Your task to perform on an android device: toggle javascript in the chrome app Image 0: 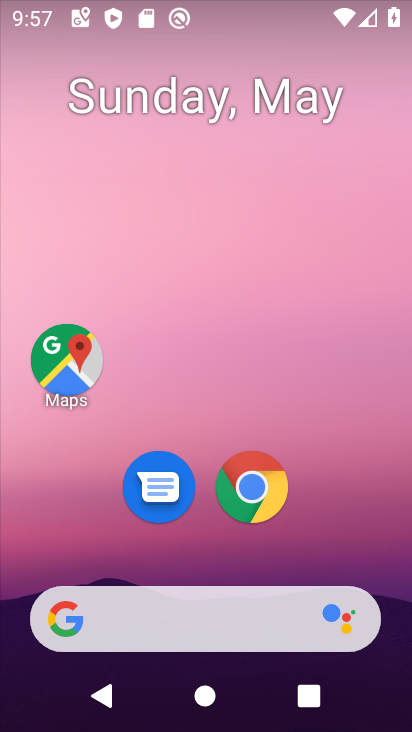
Step 0: drag from (384, 549) to (365, 164)
Your task to perform on an android device: toggle javascript in the chrome app Image 1: 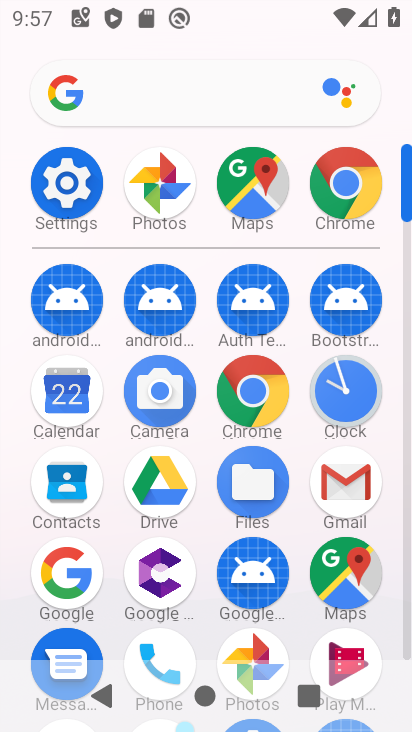
Step 1: click (256, 388)
Your task to perform on an android device: toggle javascript in the chrome app Image 2: 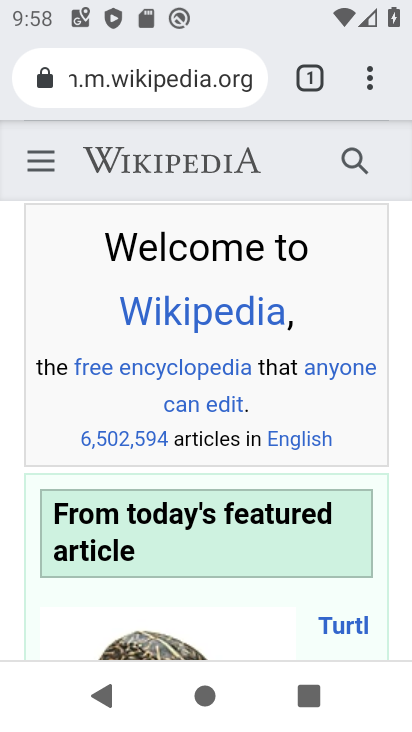
Step 2: click (369, 88)
Your task to perform on an android device: toggle javascript in the chrome app Image 3: 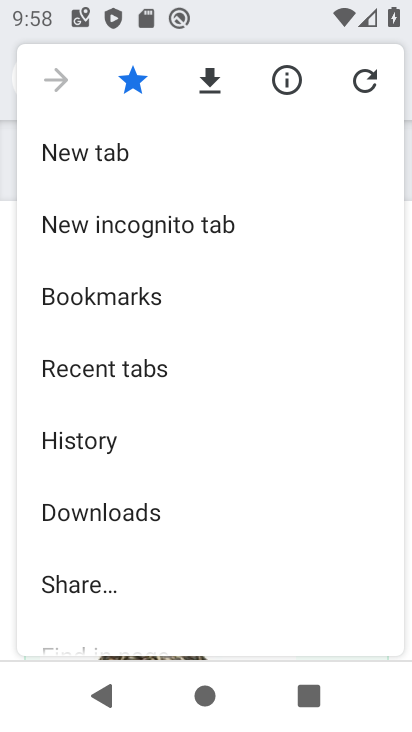
Step 3: drag from (271, 524) to (294, 395)
Your task to perform on an android device: toggle javascript in the chrome app Image 4: 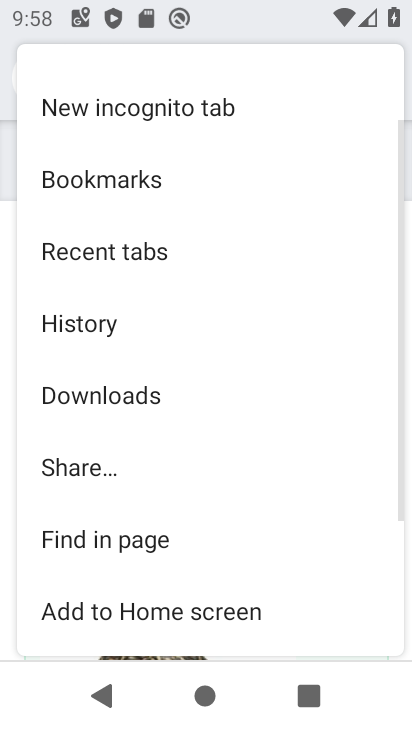
Step 4: drag from (286, 540) to (293, 421)
Your task to perform on an android device: toggle javascript in the chrome app Image 5: 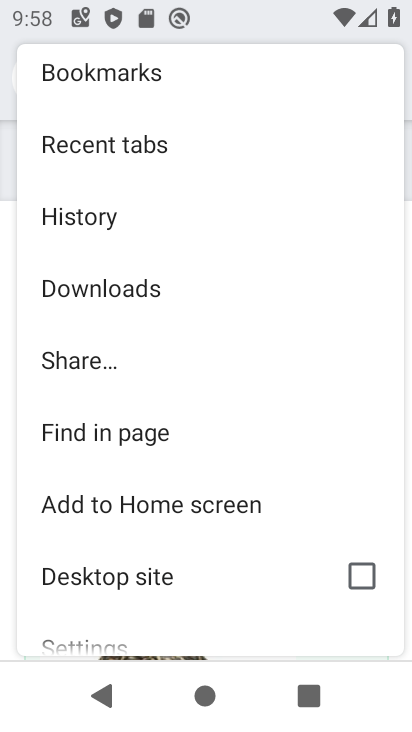
Step 5: drag from (267, 566) to (282, 398)
Your task to perform on an android device: toggle javascript in the chrome app Image 6: 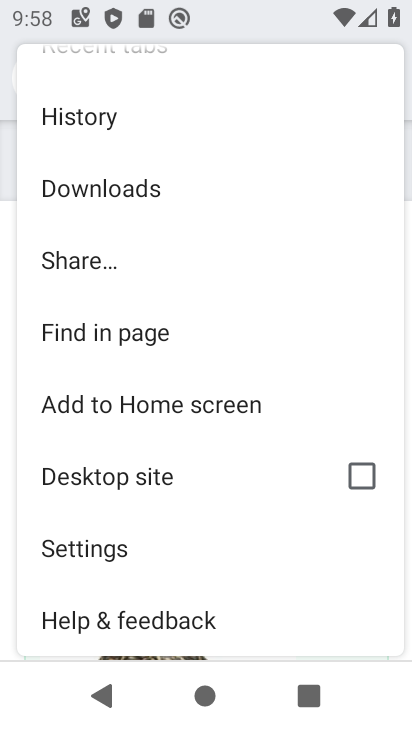
Step 6: click (136, 556)
Your task to perform on an android device: toggle javascript in the chrome app Image 7: 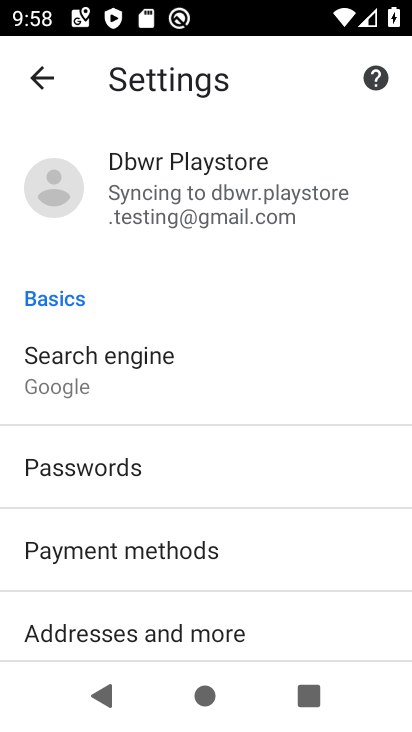
Step 7: drag from (293, 622) to (312, 477)
Your task to perform on an android device: toggle javascript in the chrome app Image 8: 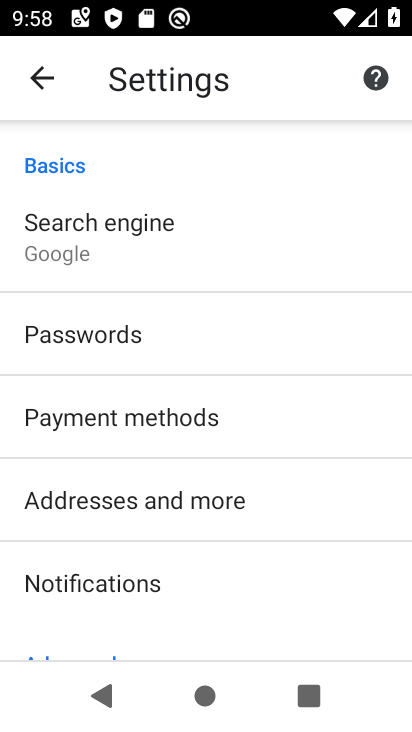
Step 8: drag from (312, 535) to (323, 394)
Your task to perform on an android device: toggle javascript in the chrome app Image 9: 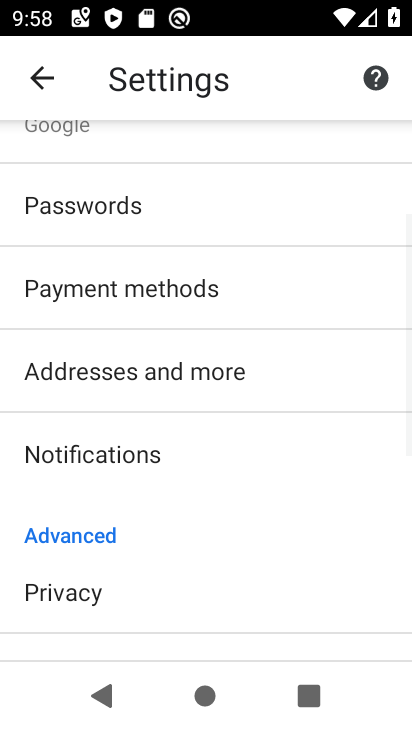
Step 9: drag from (304, 567) to (300, 428)
Your task to perform on an android device: toggle javascript in the chrome app Image 10: 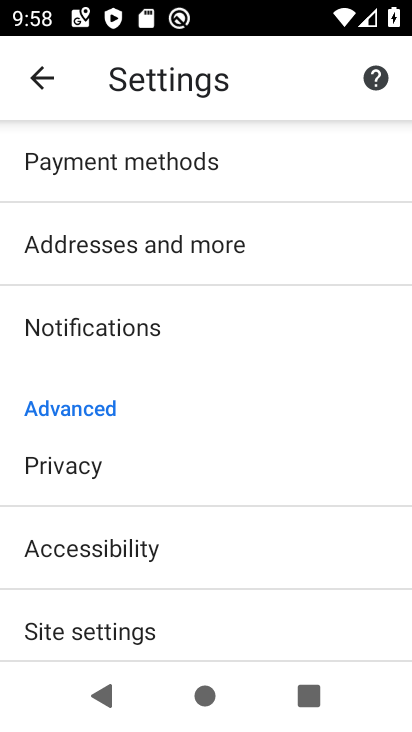
Step 10: drag from (280, 405) to (280, 509)
Your task to perform on an android device: toggle javascript in the chrome app Image 11: 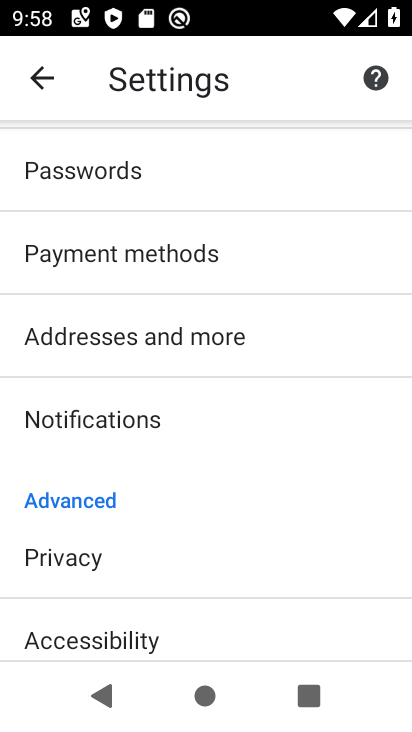
Step 11: drag from (286, 302) to (286, 463)
Your task to perform on an android device: toggle javascript in the chrome app Image 12: 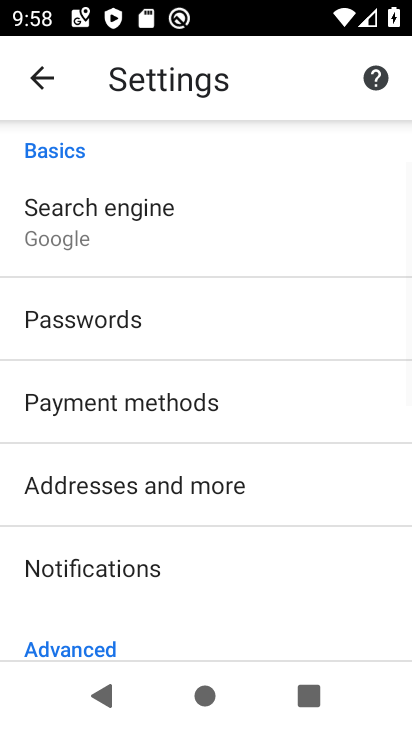
Step 12: drag from (287, 320) to (289, 508)
Your task to perform on an android device: toggle javascript in the chrome app Image 13: 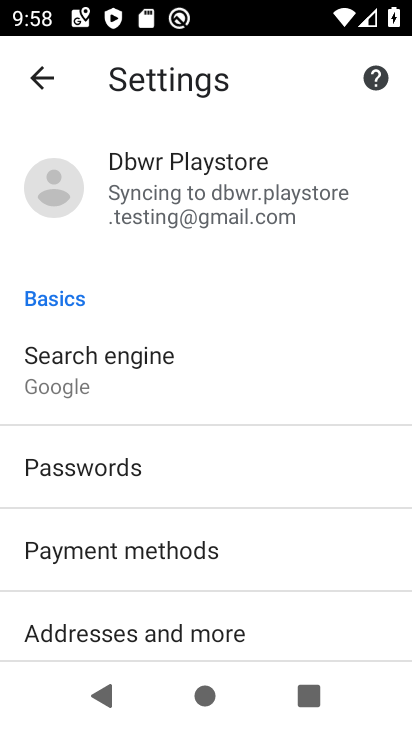
Step 13: drag from (312, 624) to (318, 459)
Your task to perform on an android device: toggle javascript in the chrome app Image 14: 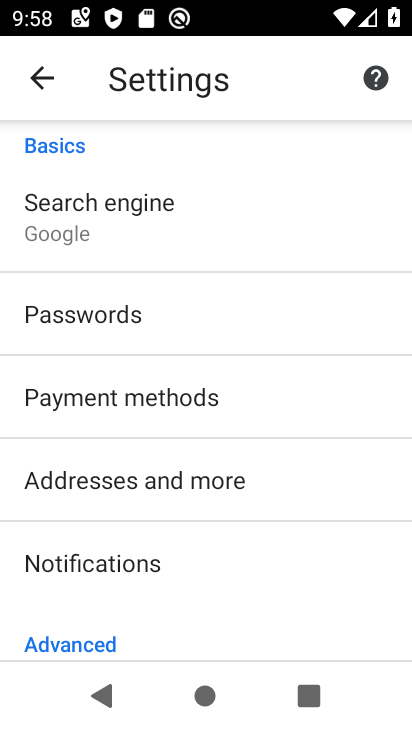
Step 14: drag from (293, 569) to (309, 469)
Your task to perform on an android device: toggle javascript in the chrome app Image 15: 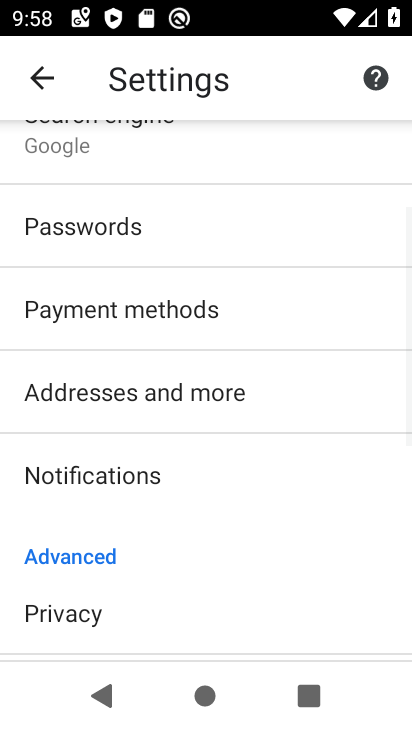
Step 15: drag from (280, 573) to (293, 430)
Your task to perform on an android device: toggle javascript in the chrome app Image 16: 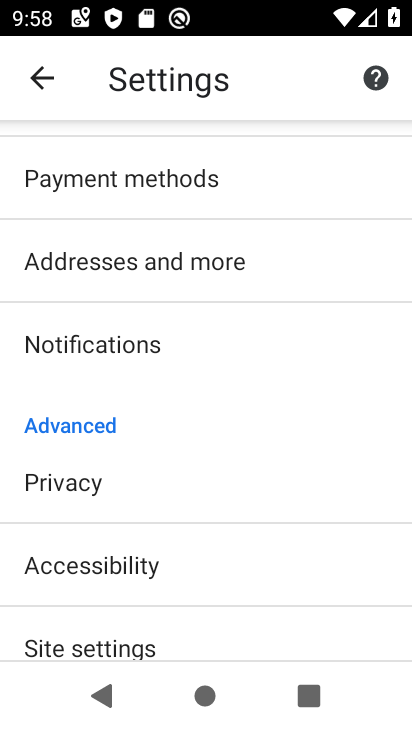
Step 16: drag from (269, 576) to (271, 411)
Your task to perform on an android device: toggle javascript in the chrome app Image 17: 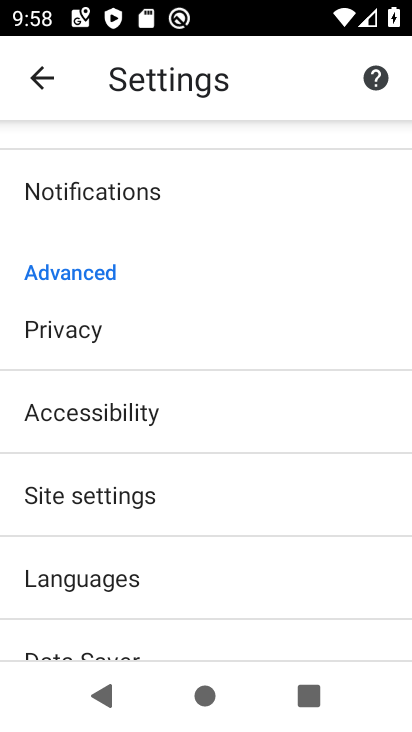
Step 17: click (177, 514)
Your task to perform on an android device: toggle javascript in the chrome app Image 18: 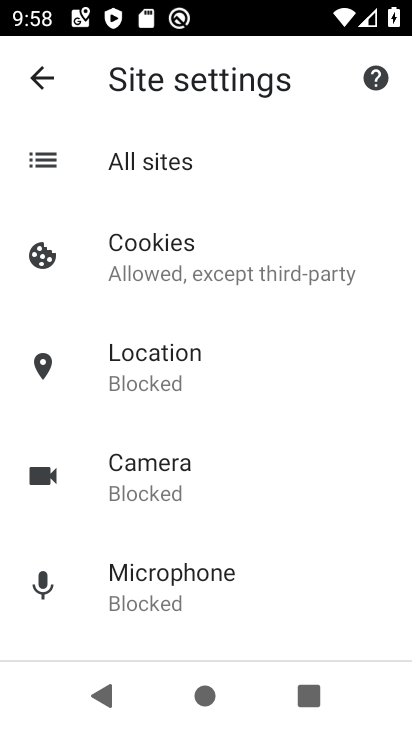
Step 18: drag from (313, 578) to (303, 406)
Your task to perform on an android device: toggle javascript in the chrome app Image 19: 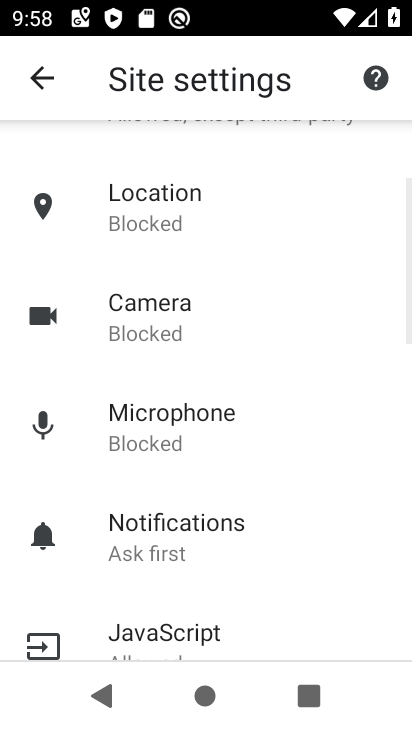
Step 19: drag from (292, 546) to (297, 417)
Your task to perform on an android device: toggle javascript in the chrome app Image 20: 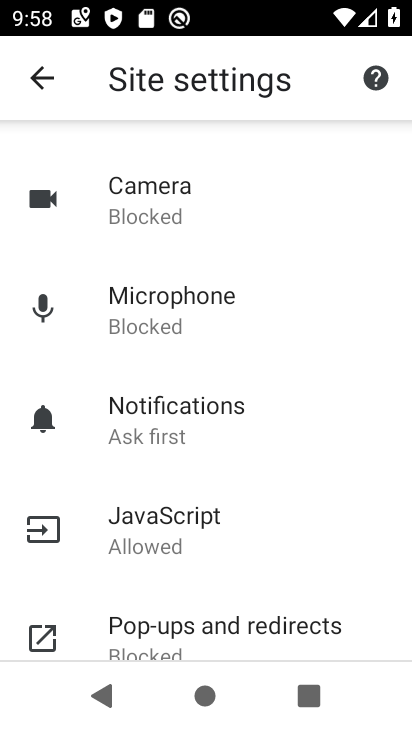
Step 20: drag from (306, 557) to (310, 485)
Your task to perform on an android device: toggle javascript in the chrome app Image 21: 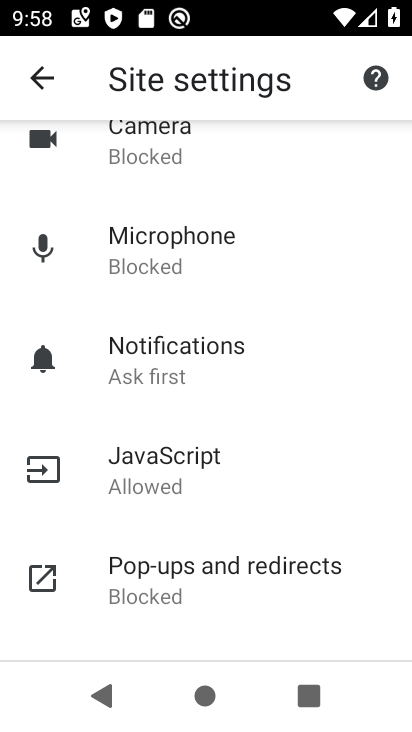
Step 21: click (201, 472)
Your task to perform on an android device: toggle javascript in the chrome app Image 22: 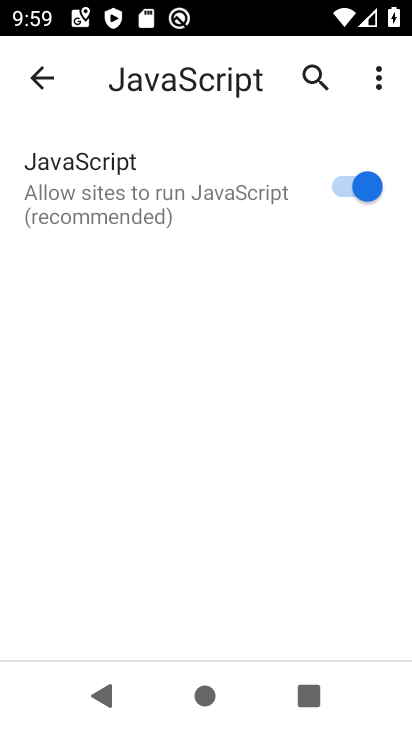
Step 22: task complete